Your task to perform on an android device: Open Android settings Image 0: 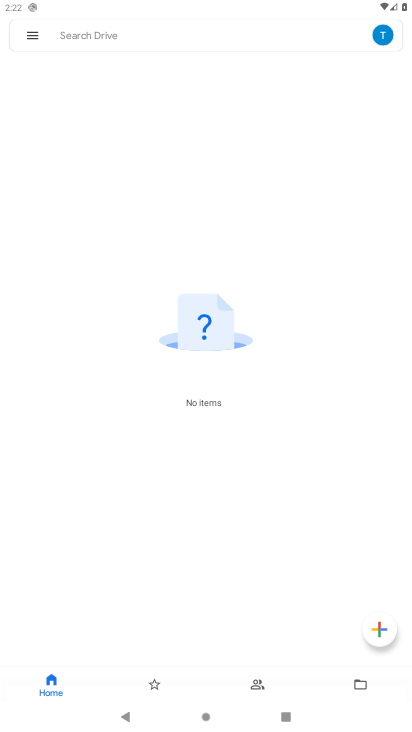
Step 0: press home button
Your task to perform on an android device: Open Android settings Image 1: 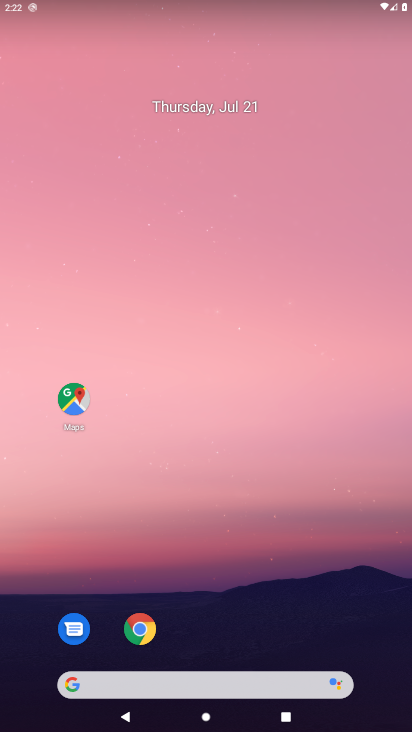
Step 1: drag from (22, 693) to (154, 276)
Your task to perform on an android device: Open Android settings Image 2: 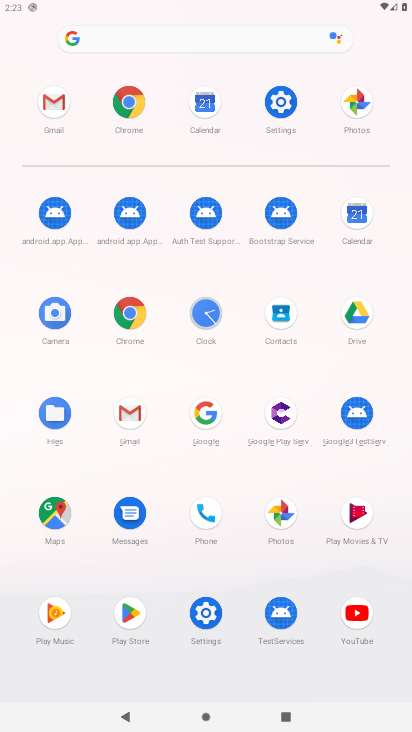
Step 2: click (200, 619)
Your task to perform on an android device: Open Android settings Image 3: 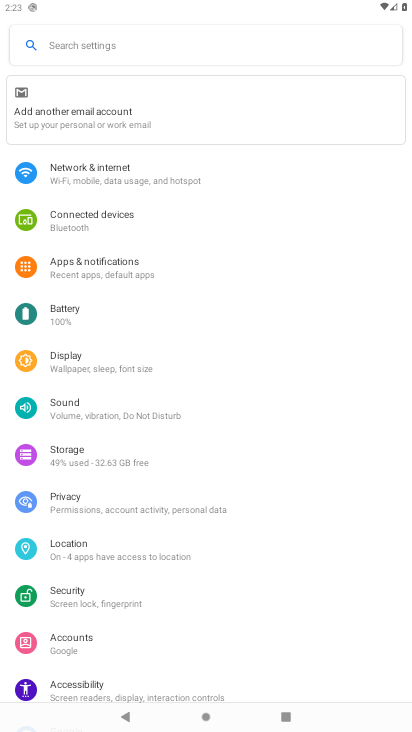
Step 3: drag from (234, 593) to (234, 405)
Your task to perform on an android device: Open Android settings Image 4: 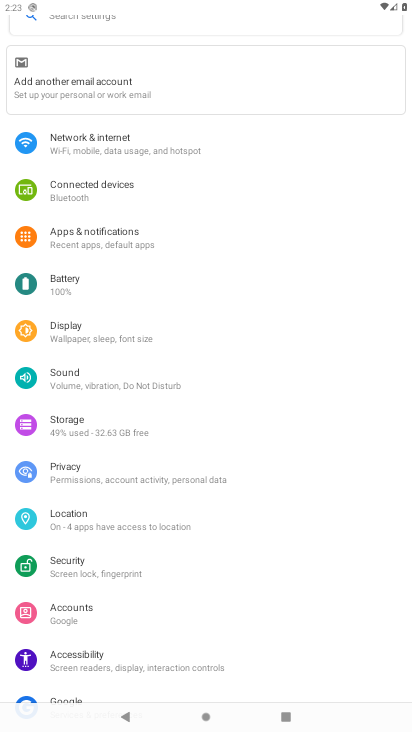
Step 4: drag from (251, 634) to (279, 333)
Your task to perform on an android device: Open Android settings Image 5: 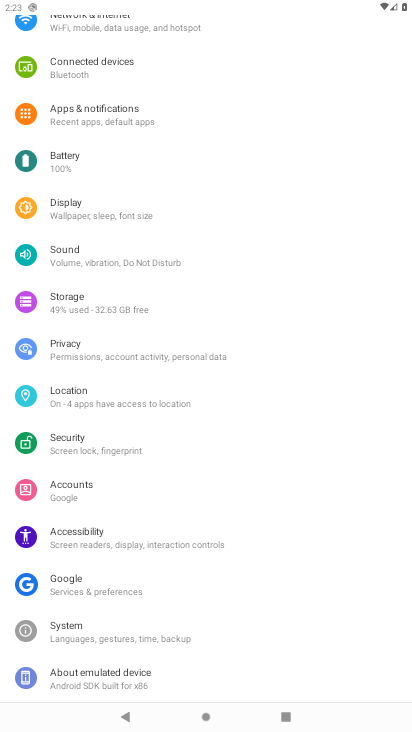
Step 5: click (75, 671)
Your task to perform on an android device: Open Android settings Image 6: 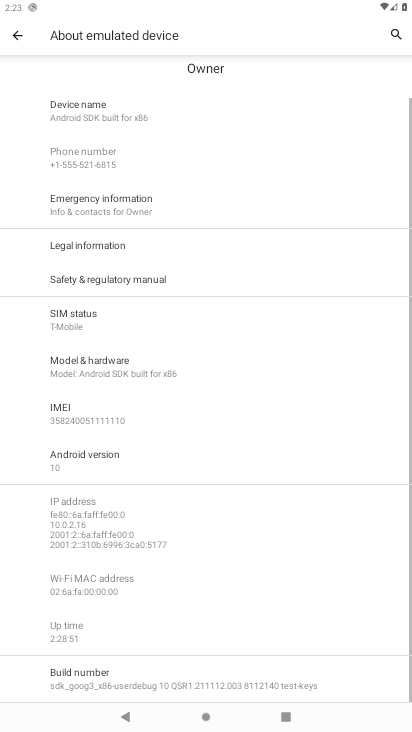
Step 6: click (77, 451)
Your task to perform on an android device: Open Android settings Image 7: 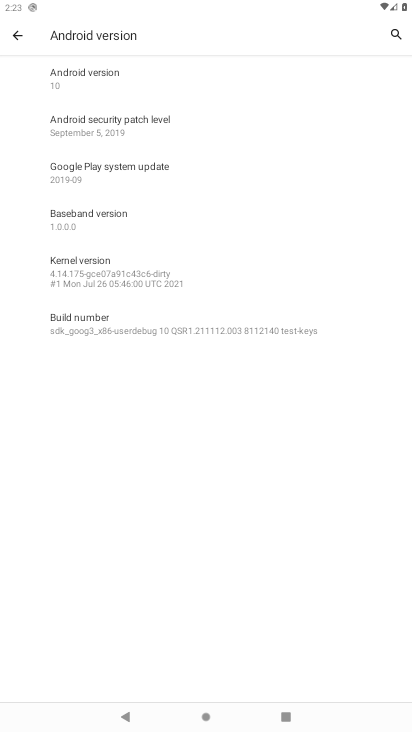
Step 7: task complete